Your task to perform on an android device: Open Google Maps Image 0: 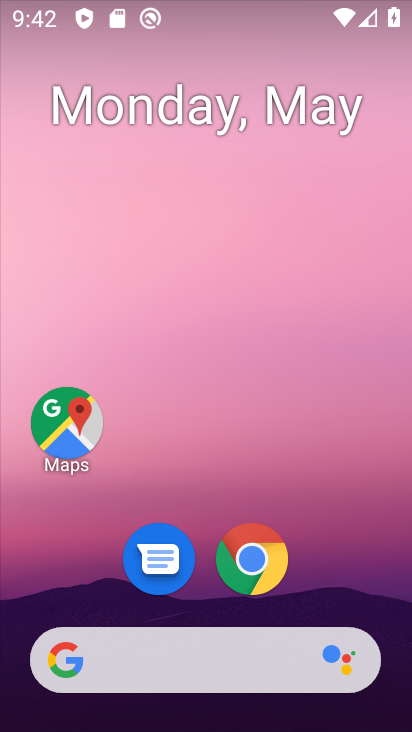
Step 0: click (60, 402)
Your task to perform on an android device: Open Google Maps Image 1: 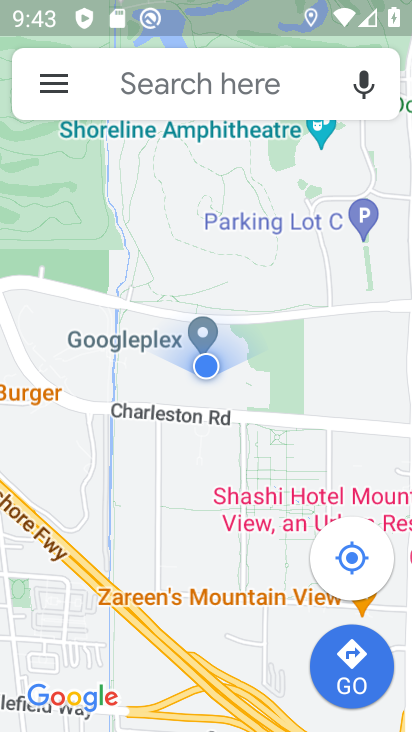
Step 1: task complete